Your task to perform on an android device: check google app version Image 0: 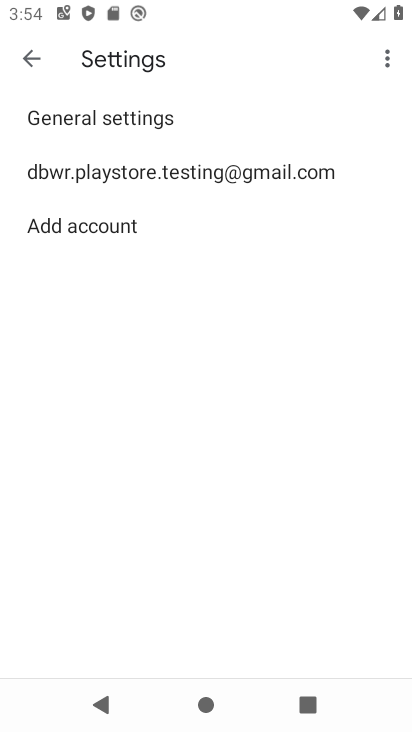
Step 0: press home button
Your task to perform on an android device: check google app version Image 1: 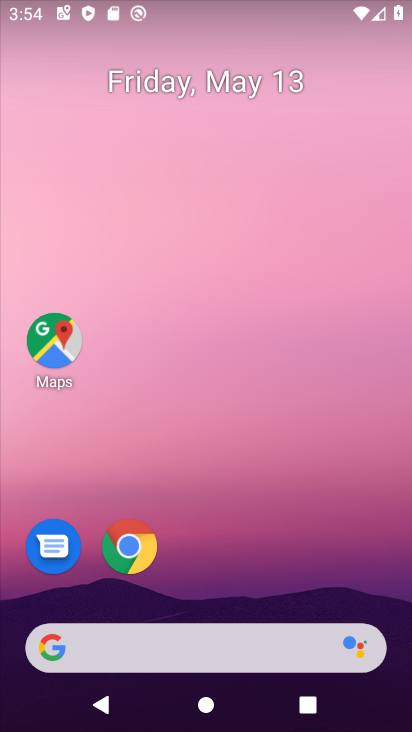
Step 1: click (193, 660)
Your task to perform on an android device: check google app version Image 2: 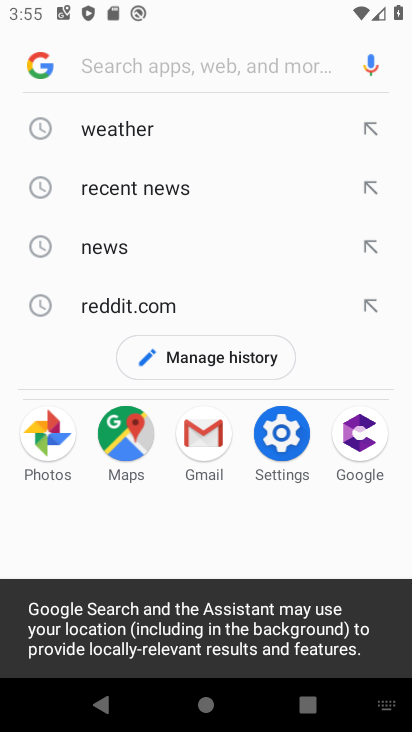
Step 2: click (41, 67)
Your task to perform on an android device: check google app version Image 3: 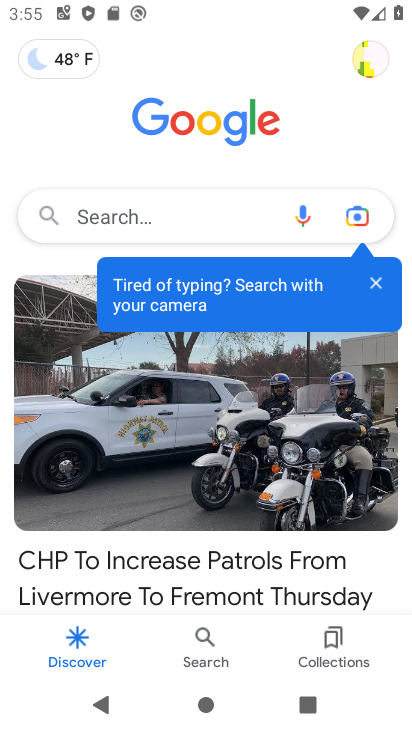
Step 3: click (362, 62)
Your task to perform on an android device: check google app version Image 4: 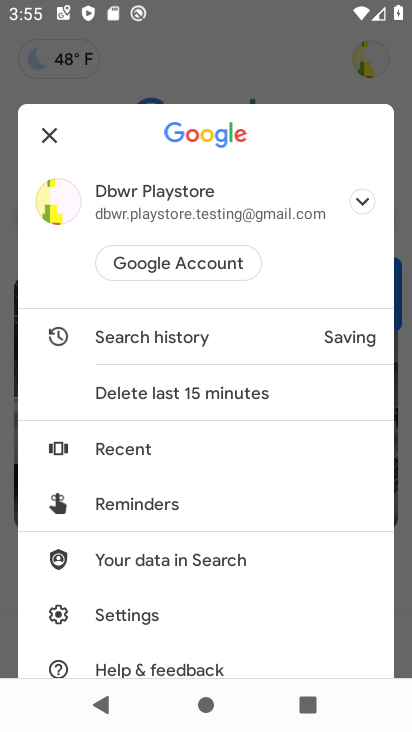
Step 4: click (163, 617)
Your task to perform on an android device: check google app version Image 5: 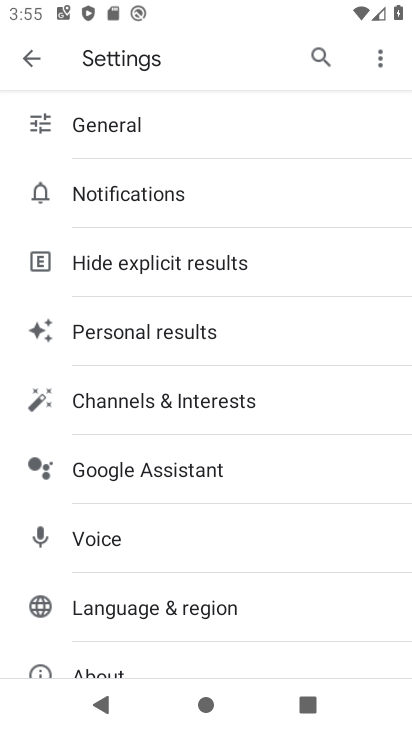
Step 5: drag from (138, 592) to (211, 225)
Your task to perform on an android device: check google app version Image 6: 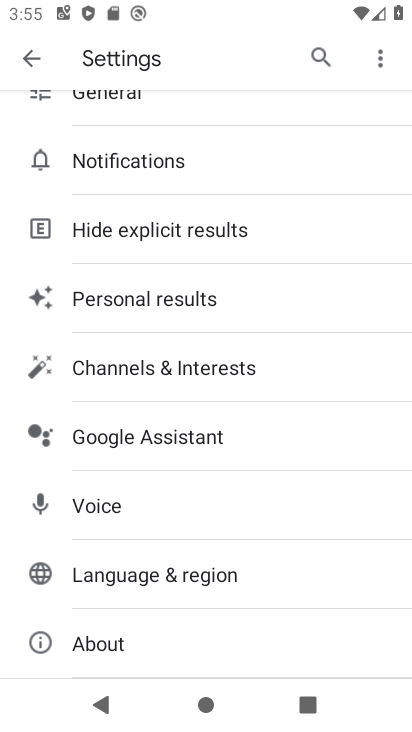
Step 6: click (124, 646)
Your task to perform on an android device: check google app version Image 7: 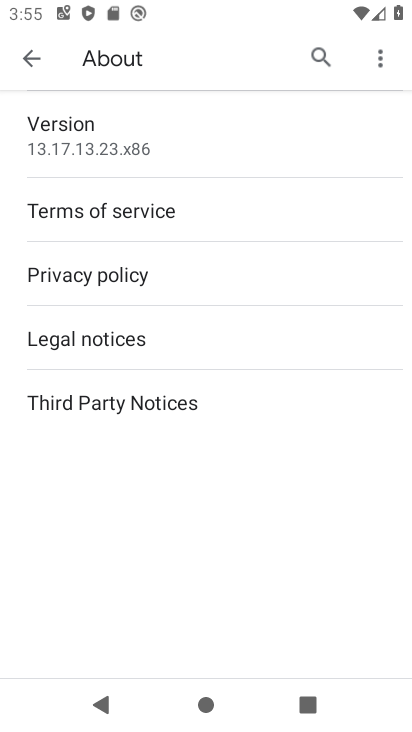
Step 7: task complete